Your task to perform on an android device: Turn off the flashlight Image 0: 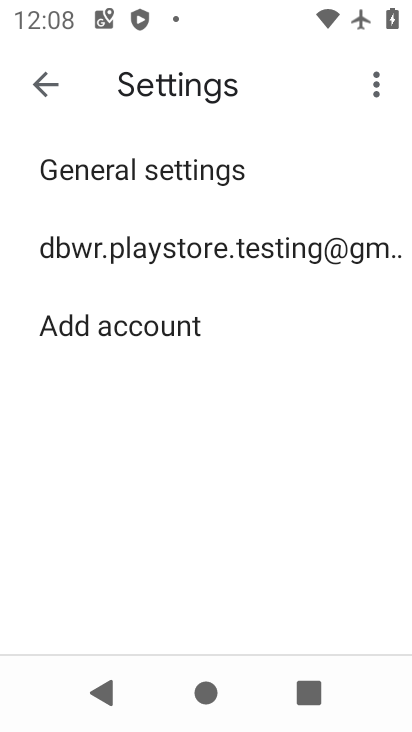
Step 0: drag from (228, 536) to (241, 217)
Your task to perform on an android device: Turn off the flashlight Image 1: 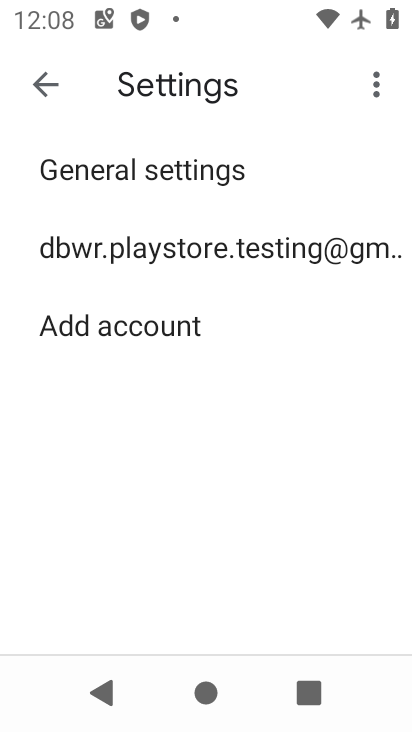
Step 1: press home button
Your task to perform on an android device: Turn off the flashlight Image 2: 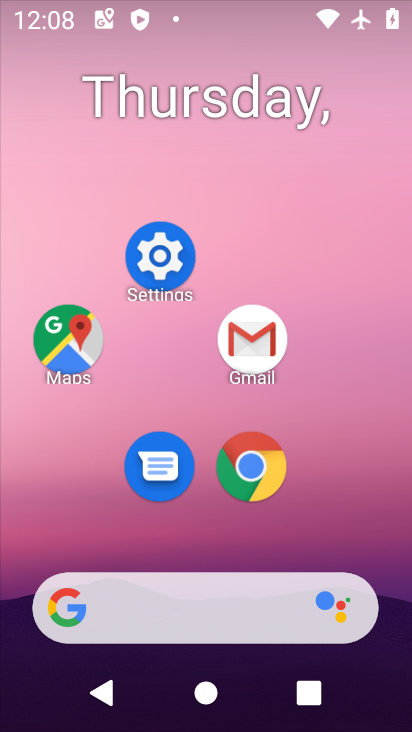
Step 2: drag from (160, 534) to (199, 11)
Your task to perform on an android device: Turn off the flashlight Image 3: 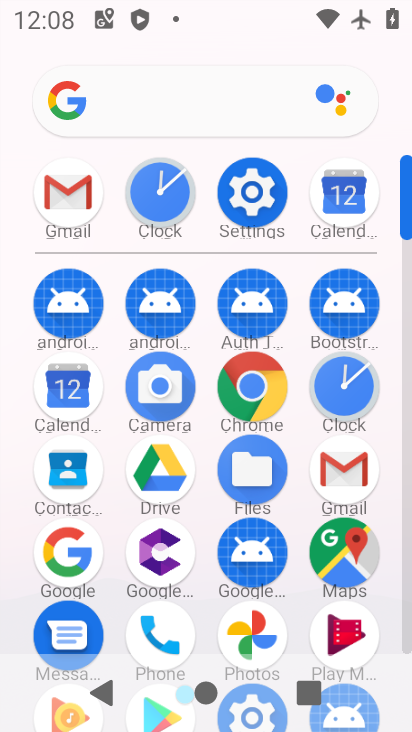
Step 3: click (230, 188)
Your task to perform on an android device: Turn off the flashlight Image 4: 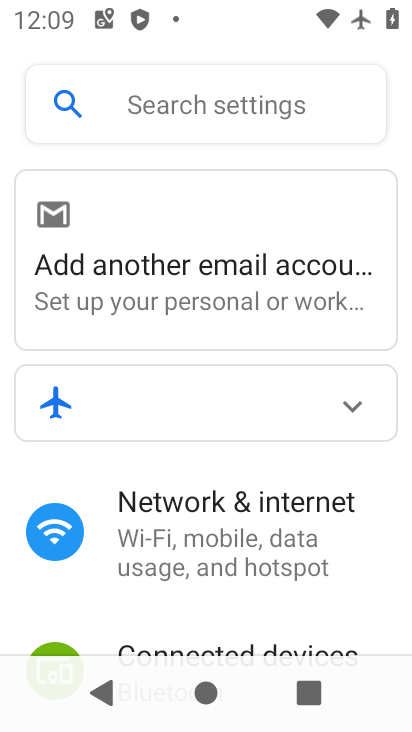
Step 4: click (256, 106)
Your task to perform on an android device: Turn off the flashlight Image 5: 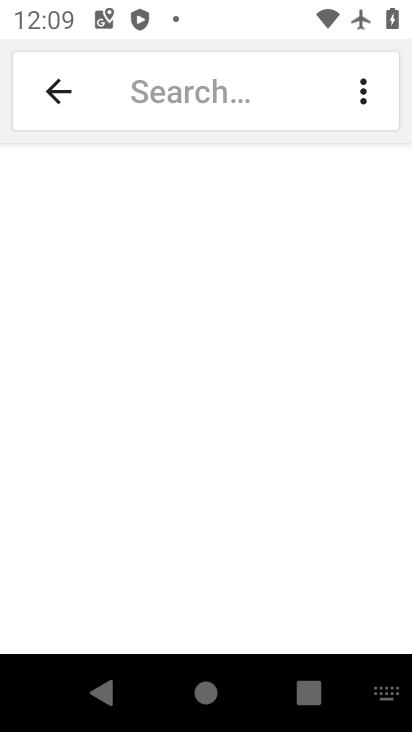
Step 5: type "flashlight"
Your task to perform on an android device: Turn off the flashlight Image 6: 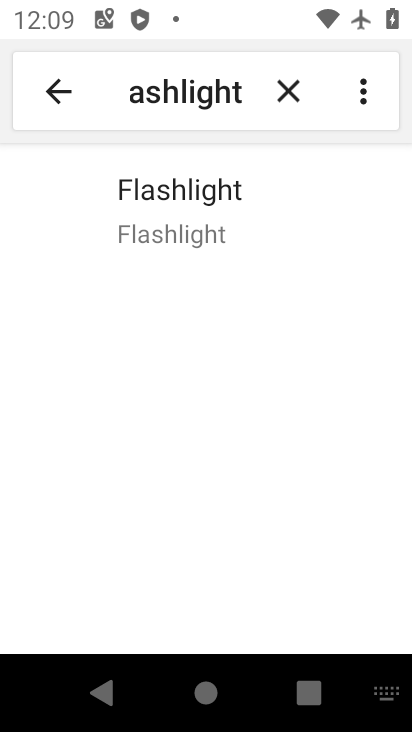
Step 6: click (186, 204)
Your task to perform on an android device: Turn off the flashlight Image 7: 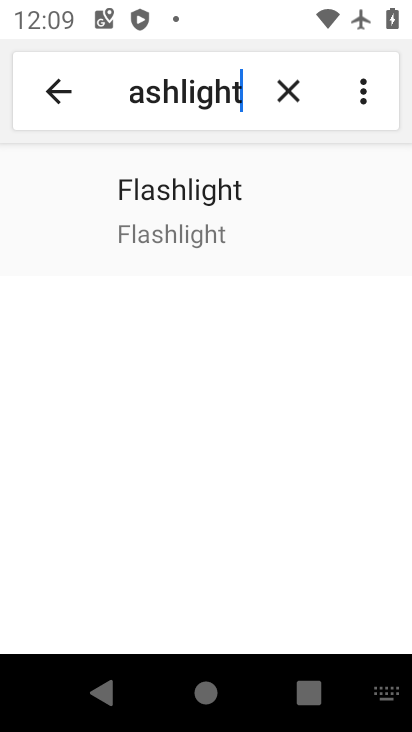
Step 7: task complete